Your task to perform on an android device: Go to internet settings Image 0: 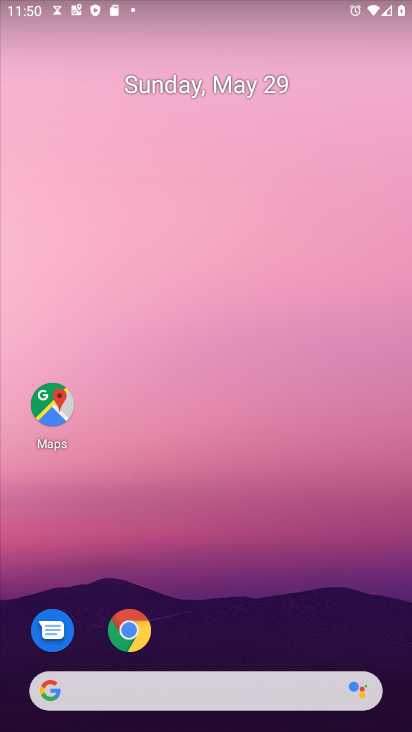
Step 0: drag from (247, 598) to (252, 0)
Your task to perform on an android device: Go to internet settings Image 1: 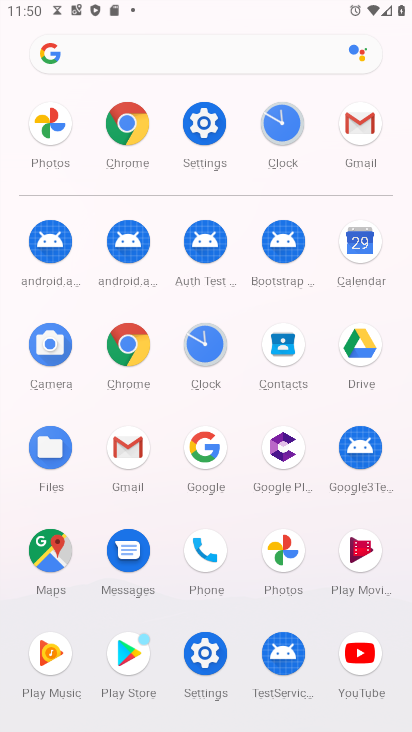
Step 1: click (216, 124)
Your task to perform on an android device: Go to internet settings Image 2: 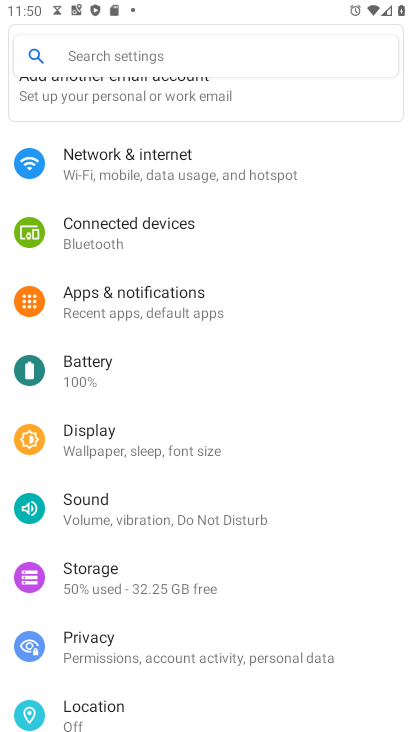
Step 2: click (190, 150)
Your task to perform on an android device: Go to internet settings Image 3: 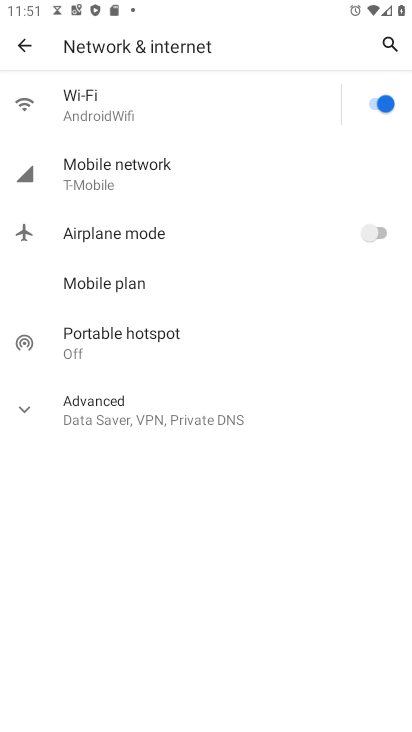
Step 3: click (74, 179)
Your task to perform on an android device: Go to internet settings Image 4: 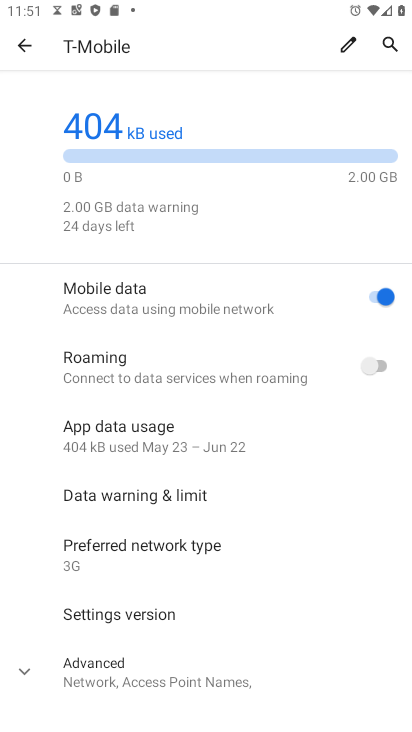
Step 4: task complete